Your task to perform on an android device: Toggle the flashlight Image 0: 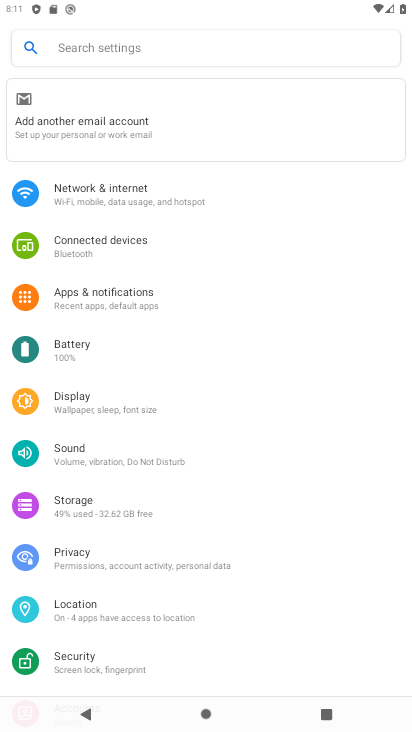
Step 0: click (103, 49)
Your task to perform on an android device: Toggle the flashlight Image 1: 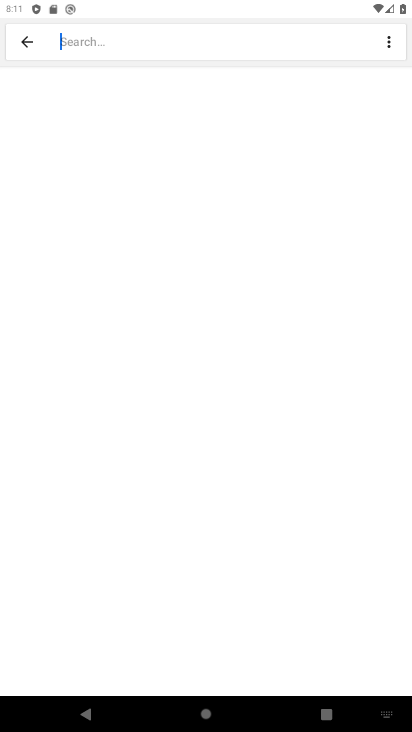
Step 1: type "flashlight"
Your task to perform on an android device: Toggle the flashlight Image 2: 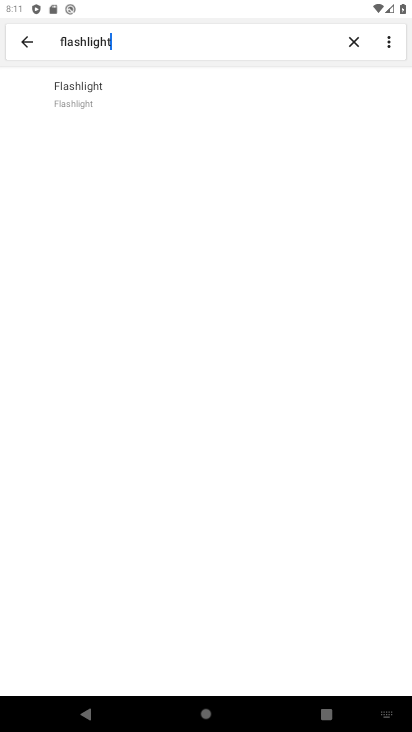
Step 2: click (62, 94)
Your task to perform on an android device: Toggle the flashlight Image 3: 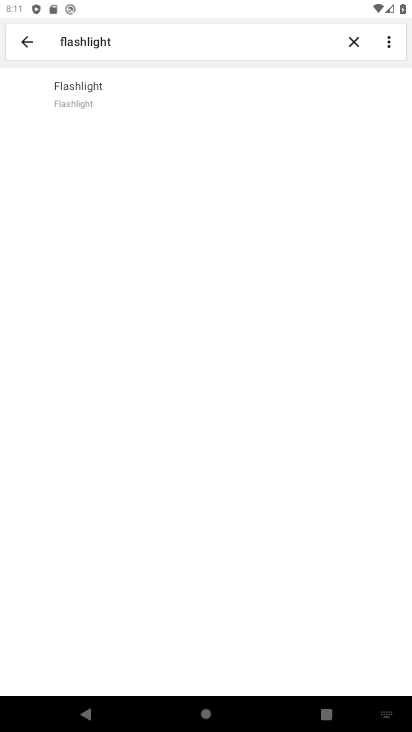
Step 3: click (115, 91)
Your task to perform on an android device: Toggle the flashlight Image 4: 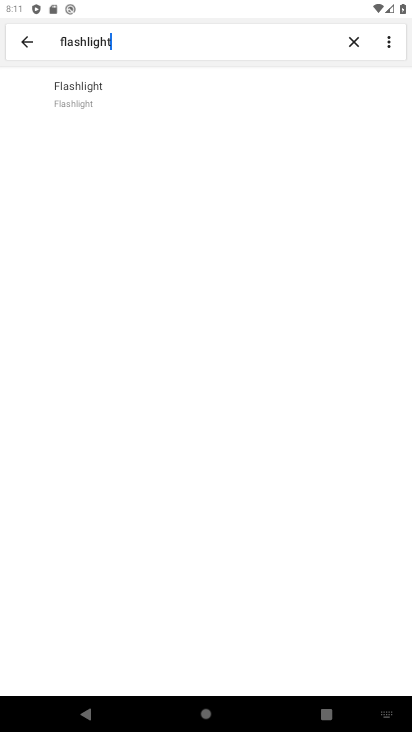
Step 4: task complete